Your task to perform on an android device: Open maps Image 0: 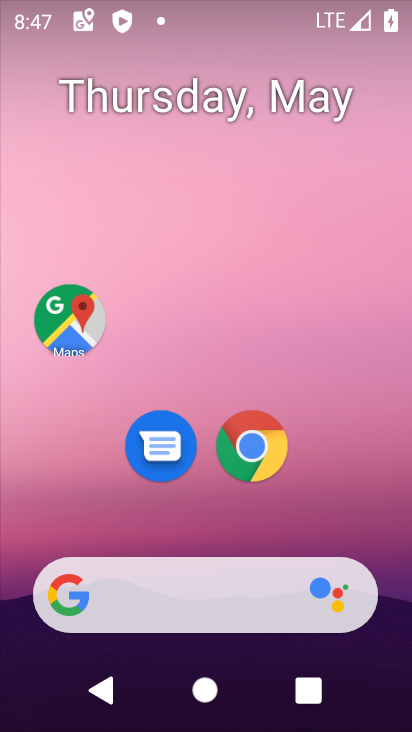
Step 0: click (72, 316)
Your task to perform on an android device: Open maps Image 1: 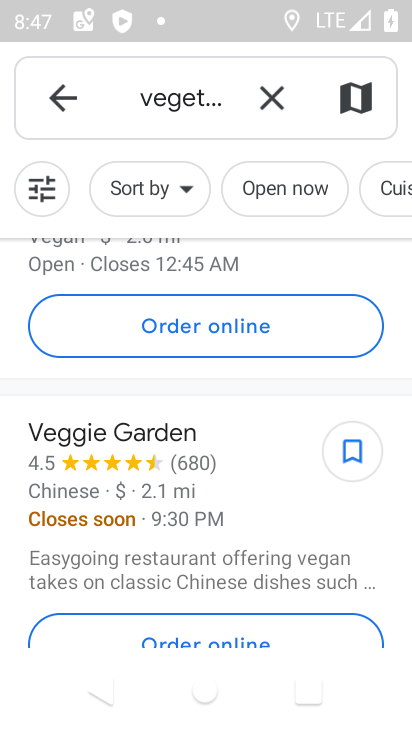
Step 1: click (273, 92)
Your task to perform on an android device: Open maps Image 2: 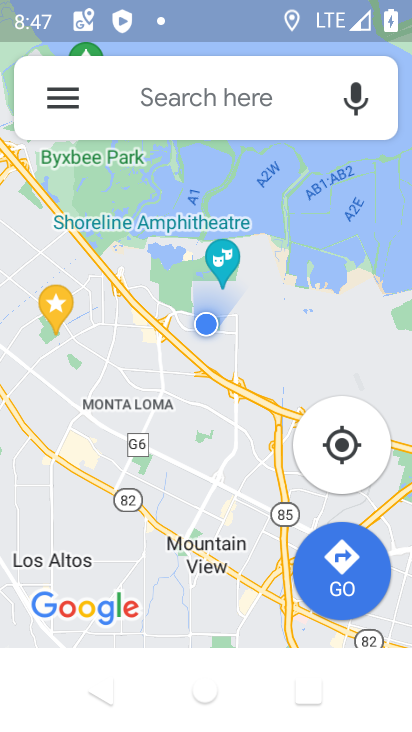
Step 2: task complete